Your task to perform on an android device: open app "Chime – Mobile Banking" (install if not already installed) Image 0: 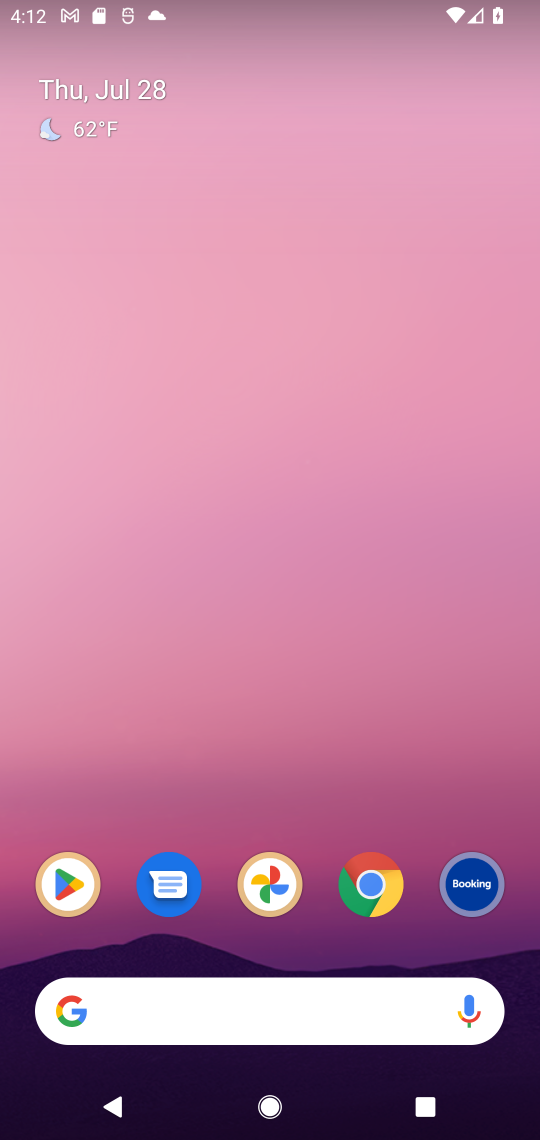
Step 0: click (89, 895)
Your task to perform on an android device: open app "Chime – Mobile Banking" (install if not already installed) Image 1: 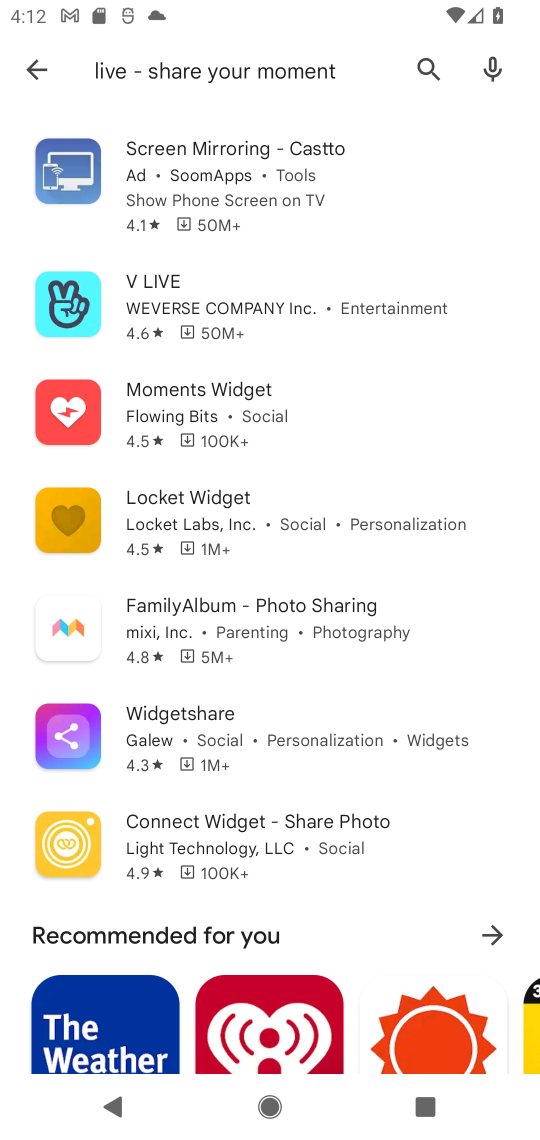
Step 1: click (429, 63)
Your task to perform on an android device: open app "Chime – Mobile Banking" (install if not already installed) Image 2: 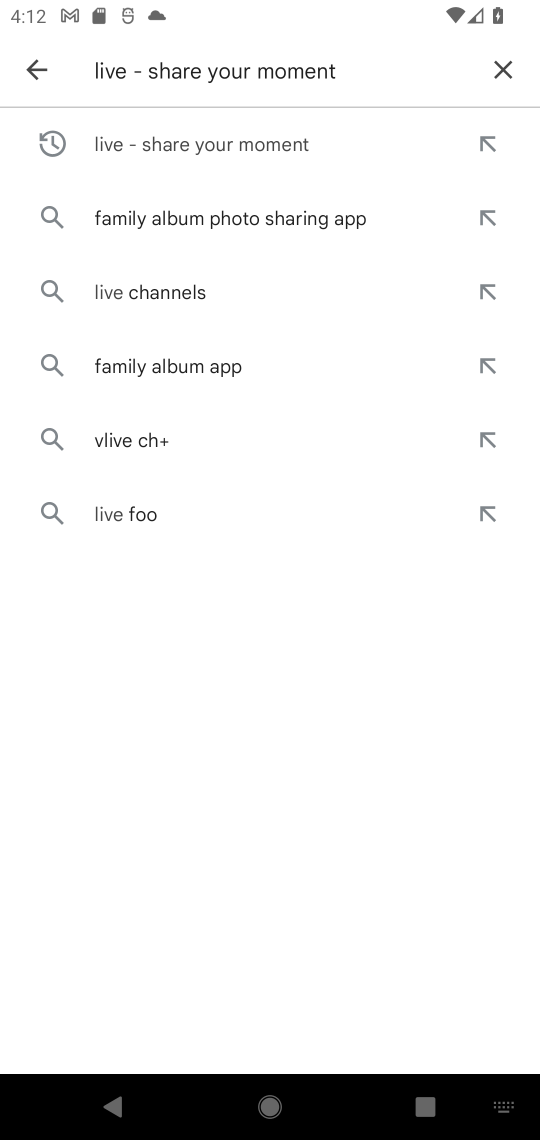
Step 2: click (493, 76)
Your task to perform on an android device: open app "Chime – Mobile Banking" (install if not already installed) Image 3: 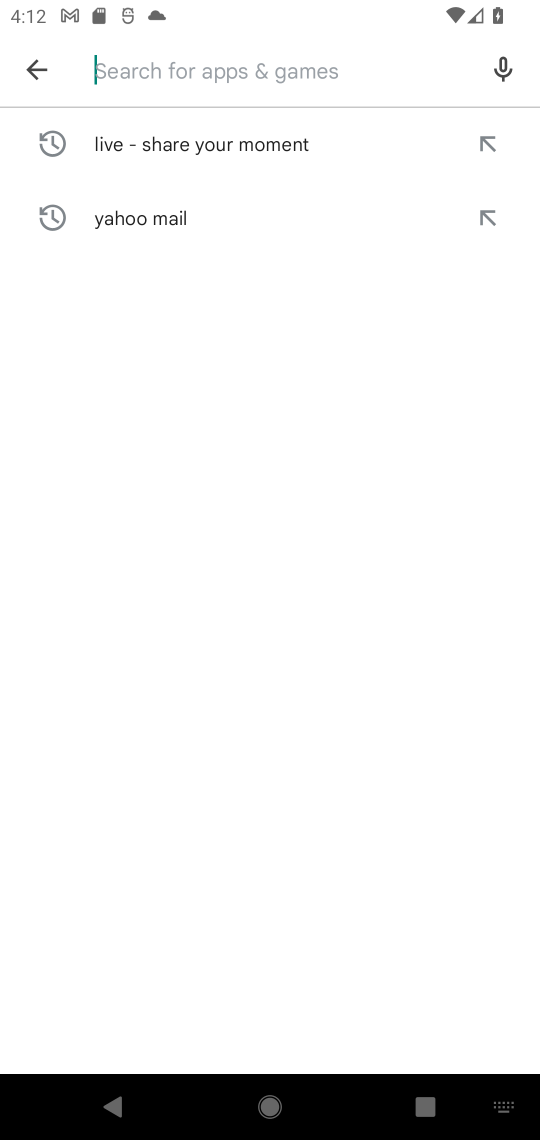
Step 3: type "Chime – Mobile Banking"
Your task to perform on an android device: open app "Chime – Mobile Banking" (install if not already installed) Image 4: 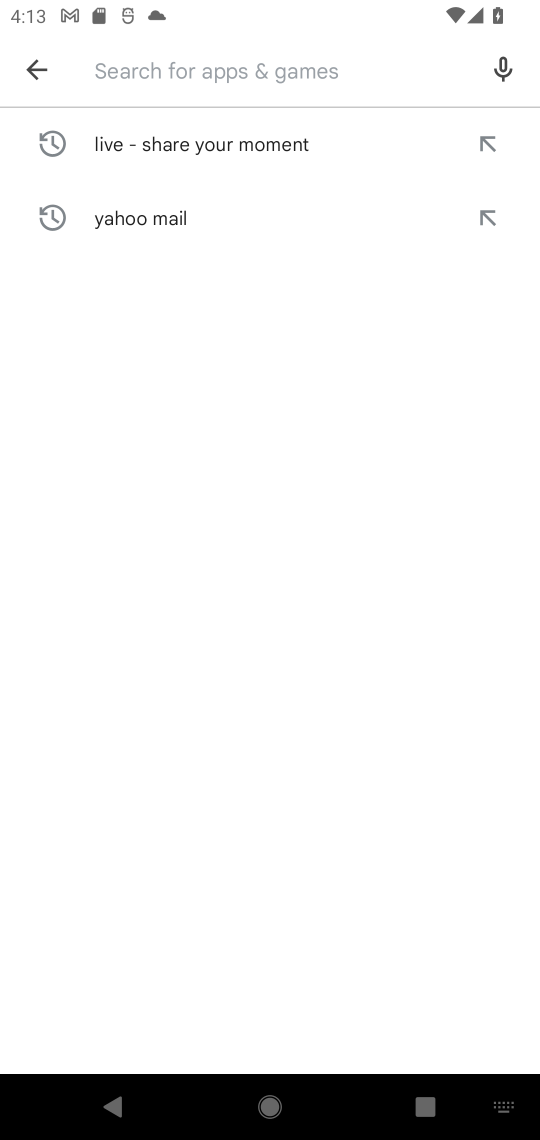
Step 4: type "chime – Mobile Banking"
Your task to perform on an android device: open app "Chime – Mobile Banking" (install if not already installed) Image 5: 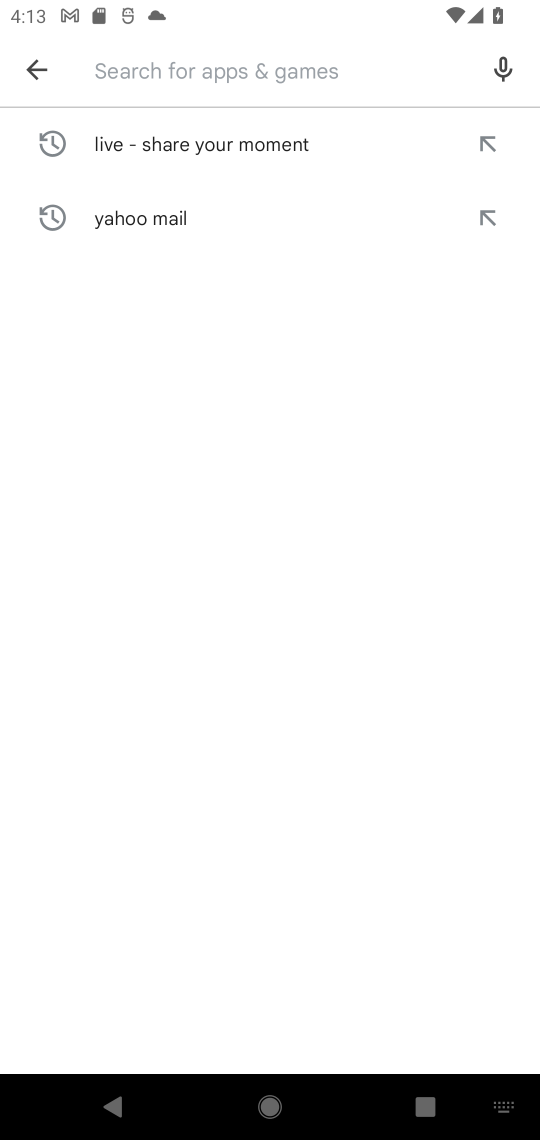
Step 5: type "chime-mobile banking"
Your task to perform on an android device: open app "Chime – Mobile Banking" (install if not already installed) Image 6: 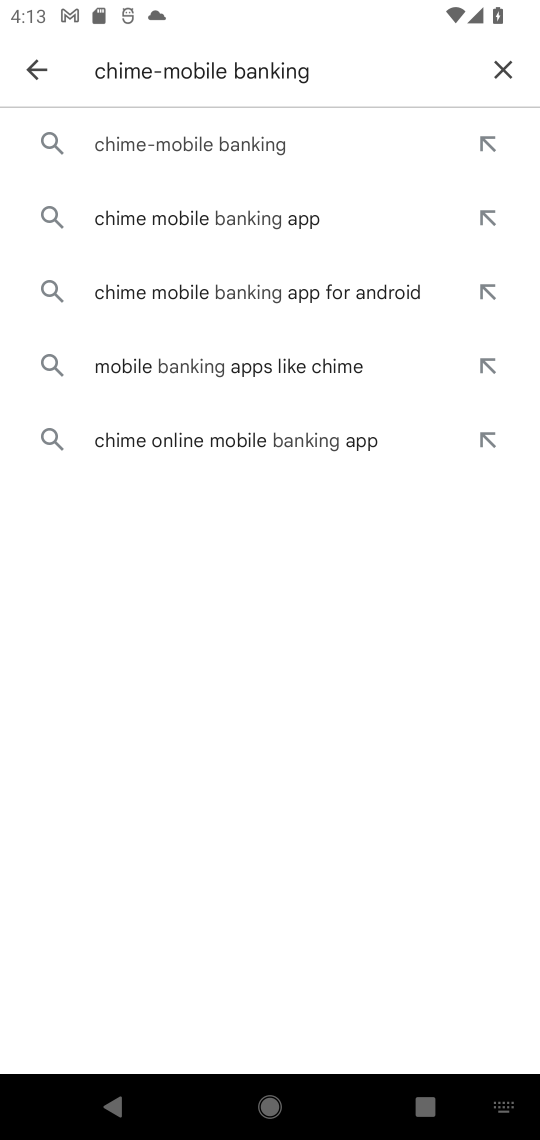
Step 6: click (342, 153)
Your task to perform on an android device: open app "Chime – Mobile Banking" (install if not already installed) Image 7: 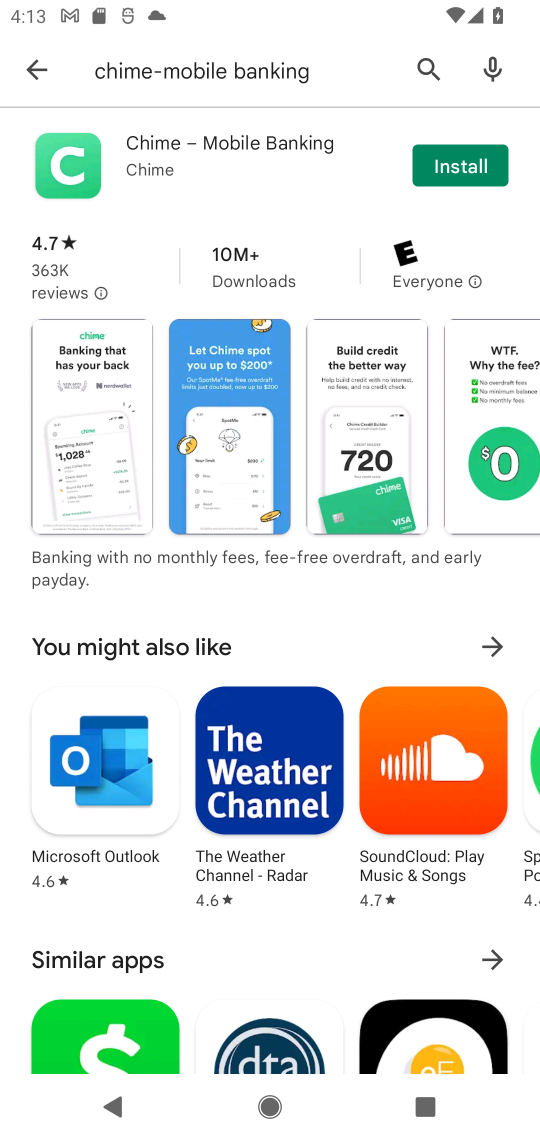
Step 7: click (471, 159)
Your task to perform on an android device: open app "Chime – Mobile Banking" (install if not already installed) Image 8: 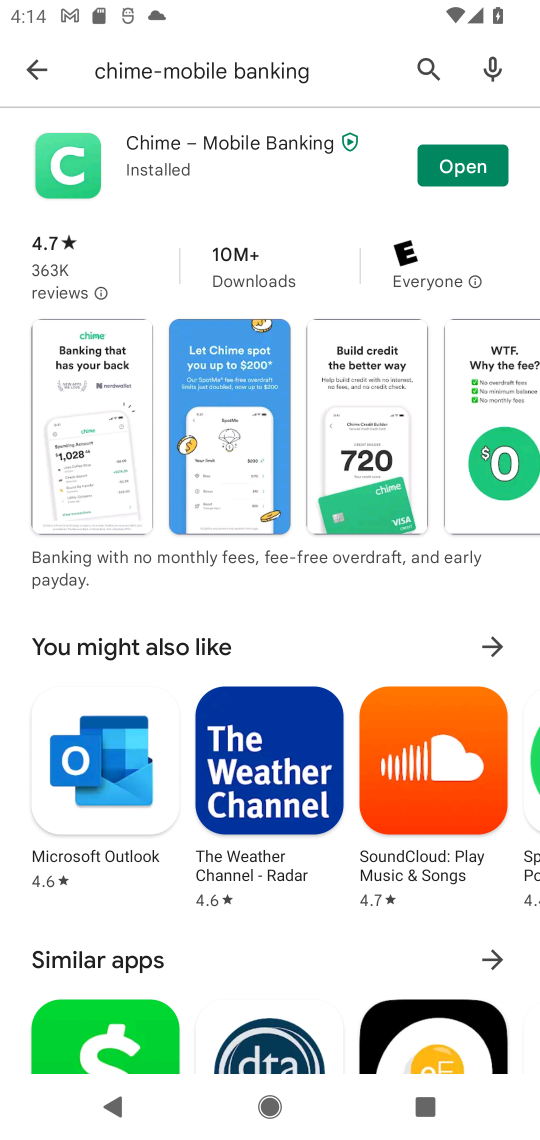
Step 8: click (471, 159)
Your task to perform on an android device: open app "Chime – Mobile Banking" (install if not already installed) Image 9: 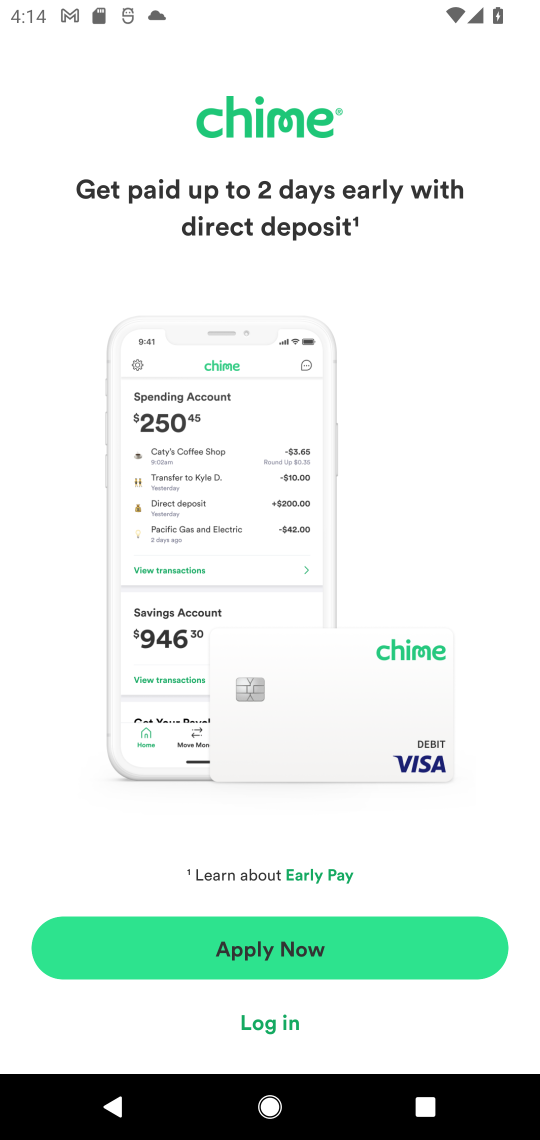
Step 9: task complete